Your task to perform on an android device: Open network settings Image 0: 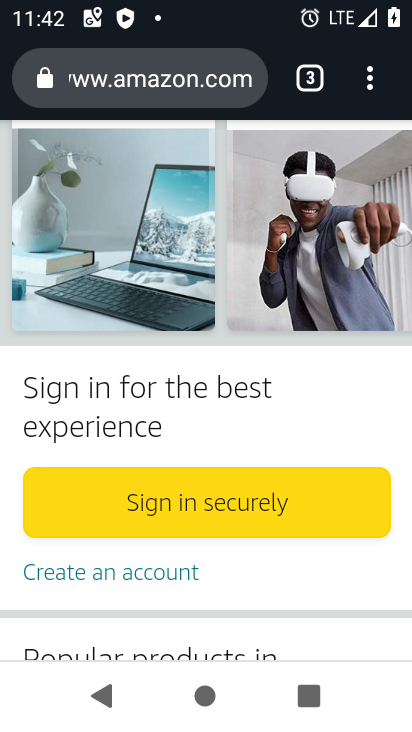
Step 0: press home button
Your task to perform on an android device: Open network settings Image 1: 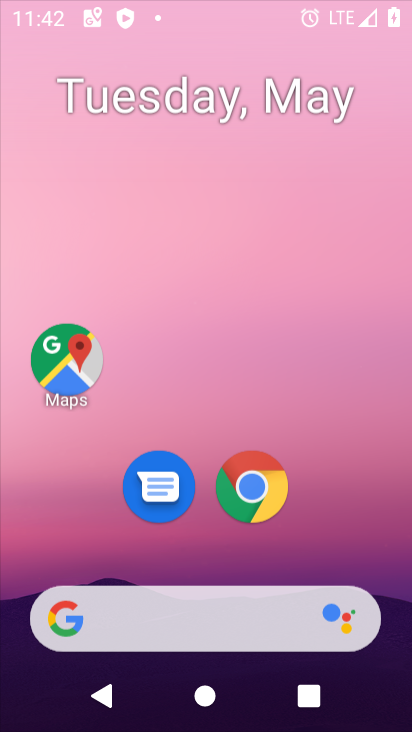
Step 1: drag from (196, 523) to (313, 67)
Your task to perform on an android device: Open network settings Image 2: 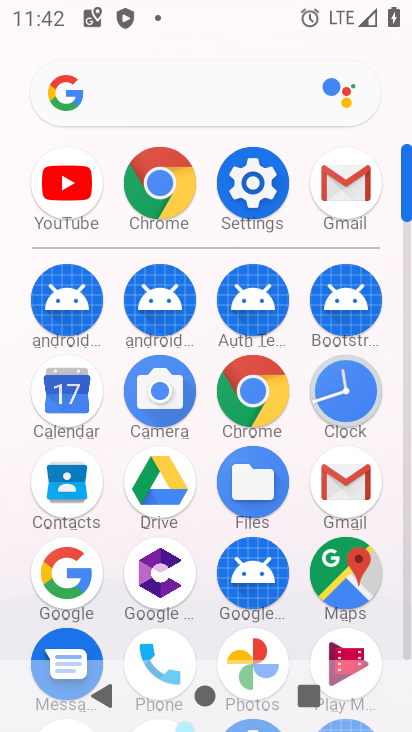
Step 2: click (257, 197)
Your task to perform on an android device: Open network settings Image 3: 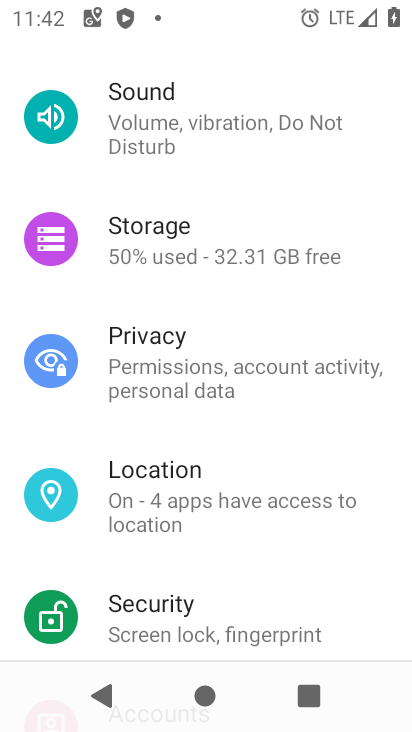
Step 3: drag from (168, 168) to (211, 516)
Your task to perform on an android device: Open network settings Image 4: 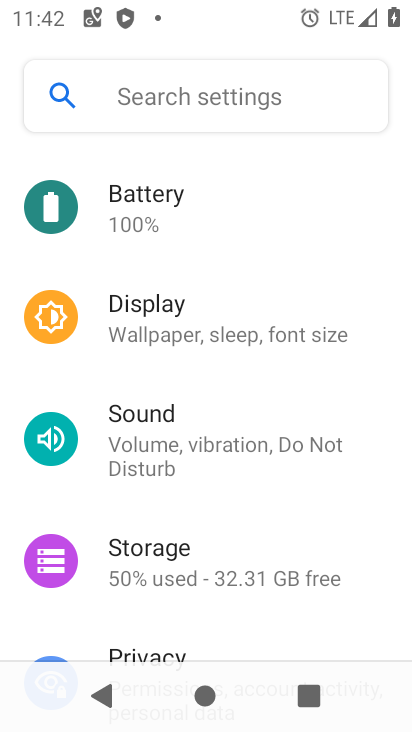
Step 4: drag from (224, 560) to (269, 133)
Your task to perform on an android device: Open network settings Image 5: 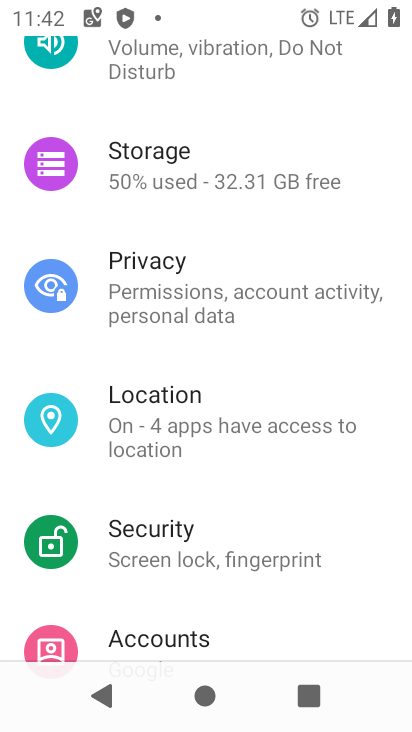
Step 5: drag from (245, 159) to (270, 725)
Your task to perform on an android device: Open network settings Image 6: 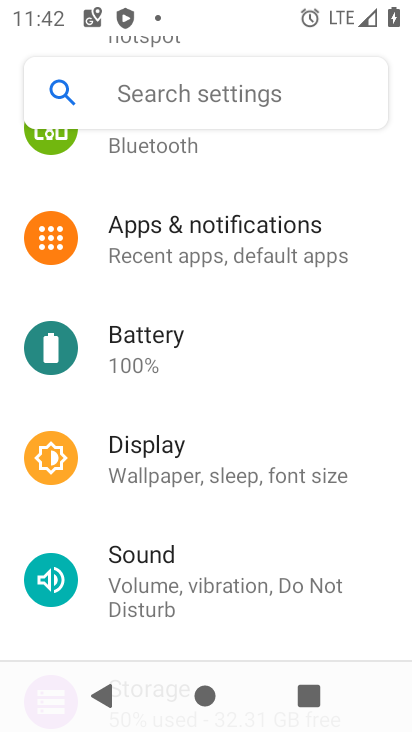
Step 6: drag from (226, 272) to (292, 657)
Your task to perform on an android device: Open network settings Image 7: 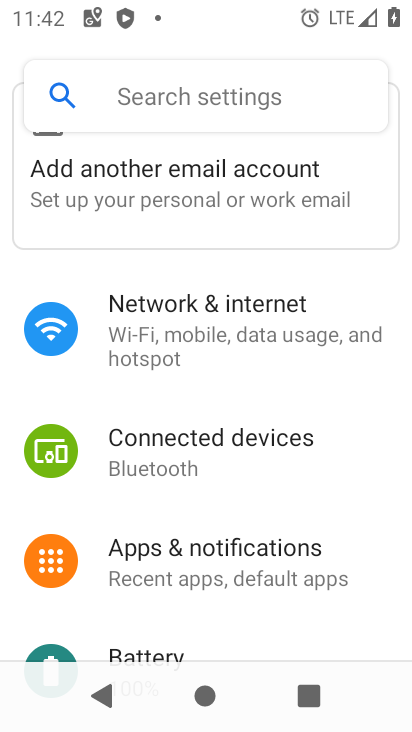
Step 7: click (208, 358)
Your task to perform on an android device: Open network settings Image 8: 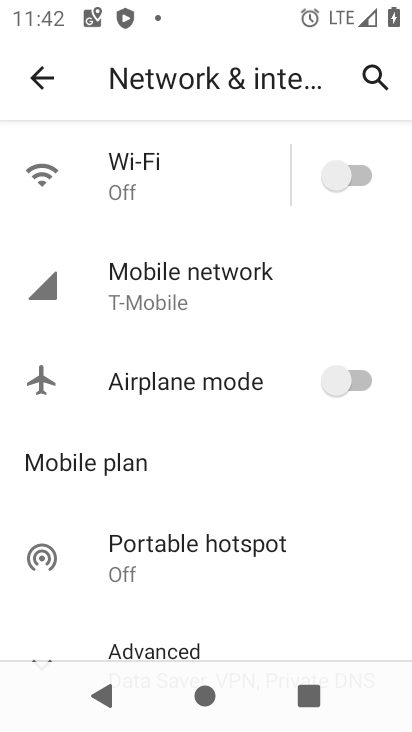
Step 8: task complete